Your task to perform on an android device: set the timer Image 0: 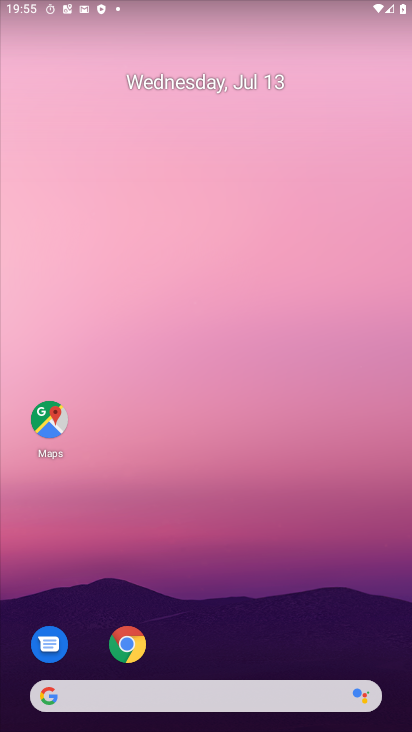
Step 0: drag from (298, 617) to (370, 109)
Your task to perform on an android device: set the timer Image 1: 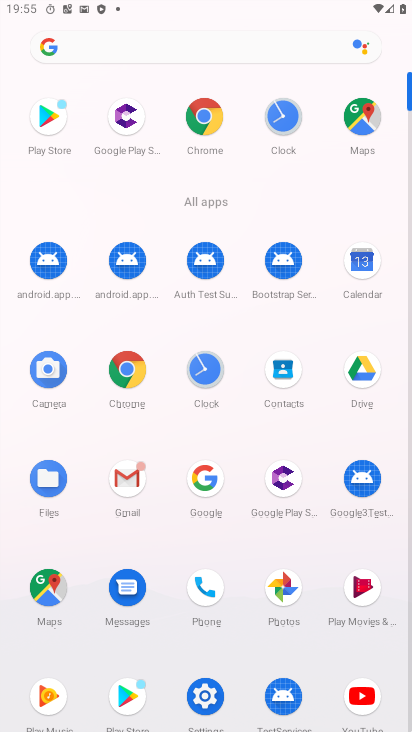
Step 1: click (285, 107)
Your task to perform on an android device: set the timer Image 2: 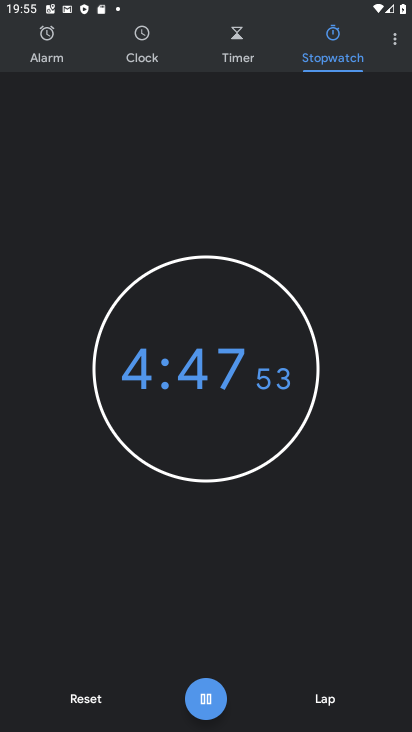
Step 2: click (246, 36)
Your task to perform on an android device: set the timer Image 3: 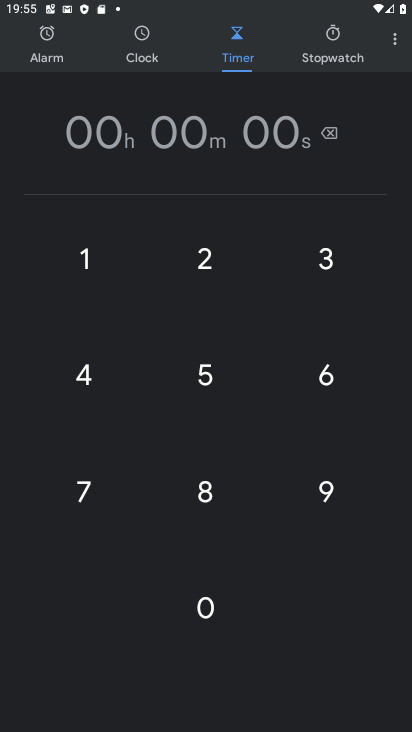
Step 3: click (107, 254)
Your task to perform on an android device: set the timer Image 4: 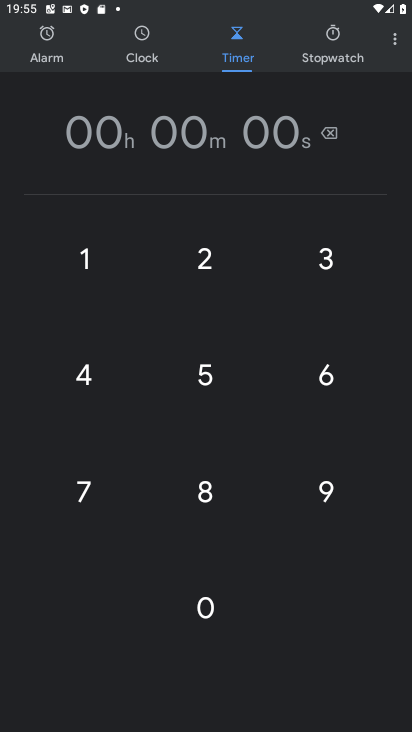
Step 4: click (107, 254)
Your task to perform on an android device: set the timer Image 5: 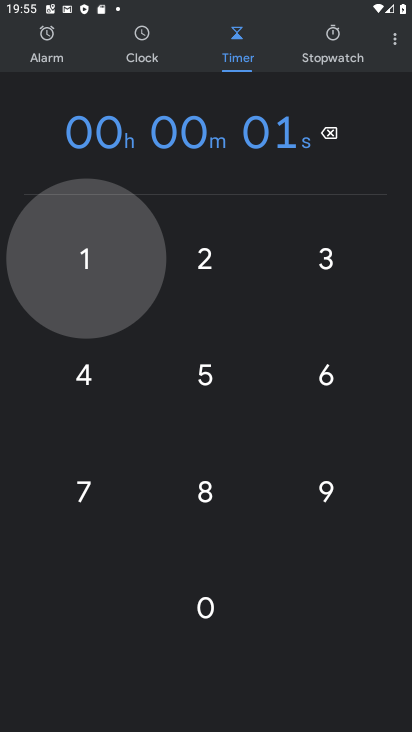
Step 5: click (107, 254)
Your task to perform on an android device: set the timer Image 6: 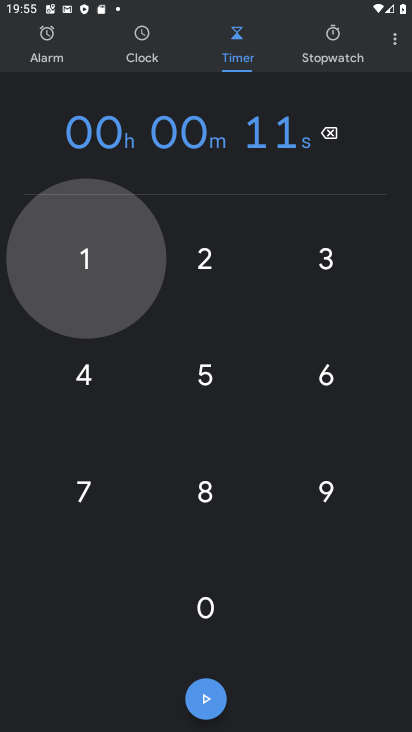
Step 6: click (107, 254)
Your task to perform on an android device: set the timer Image 7: 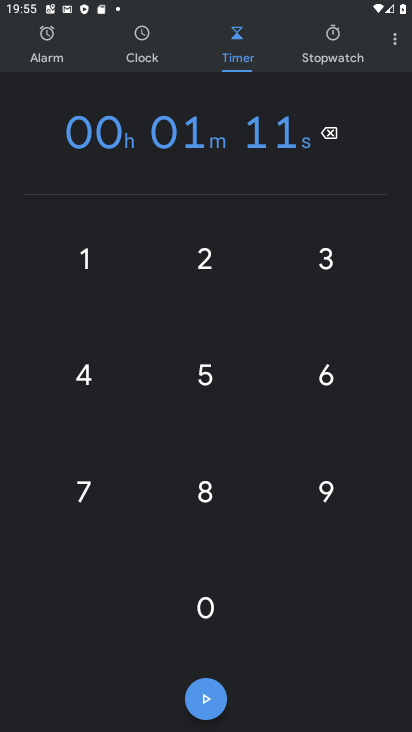
Step 7: click (107, 254)
Your task to perform on an android device: set the timer Image 8: 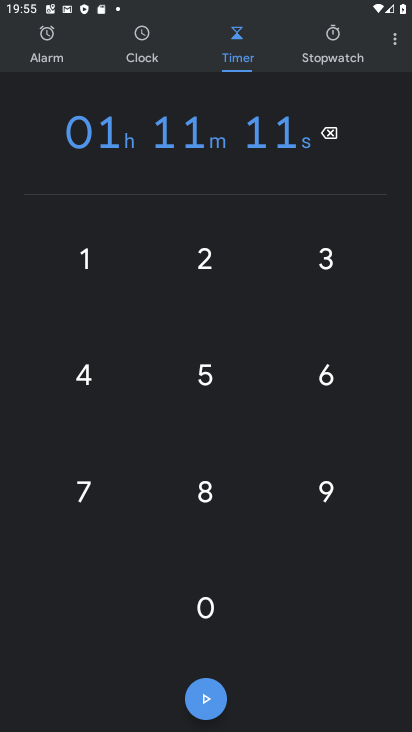
Step 8: click (107, 254)
Your task to perform on an android device: set the timer Image 9: 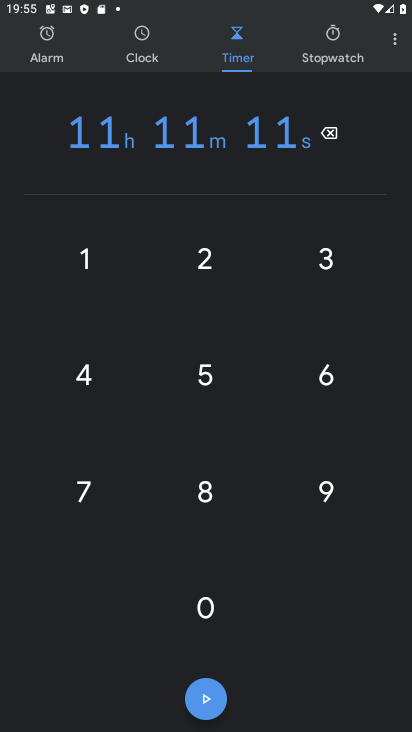
Step 9: click (210, 698)
Your task to perform on an android device: set the timer Image 10: 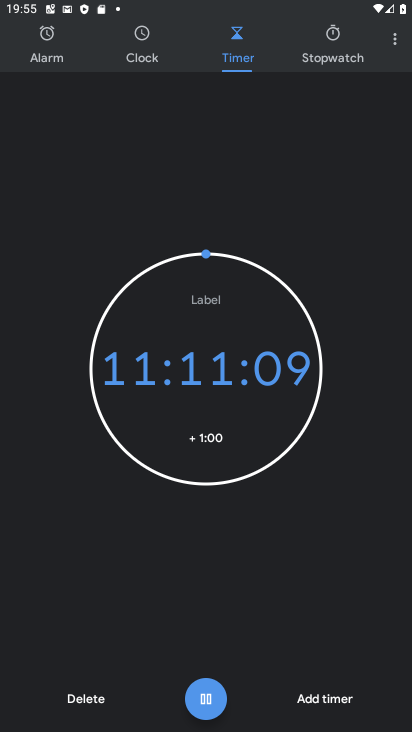
Step 10: task complete